Your task to perform on an android device: Show me productivity apps on the Play Store Image 0: 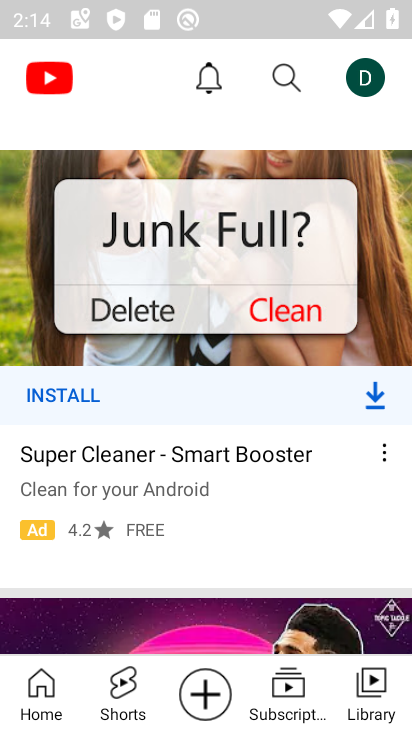
Step 0: press home button
Your task to perform on an android device: Show me productivity apps on the Play Store Image 1: 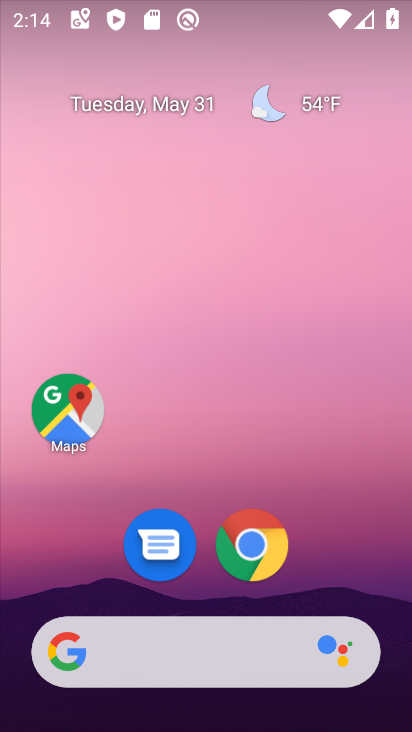
Step 1: drag from (397, 601) to (399, 54)
Your task to perform on an android device: Show me productivity apps on the Play Store Image 2: 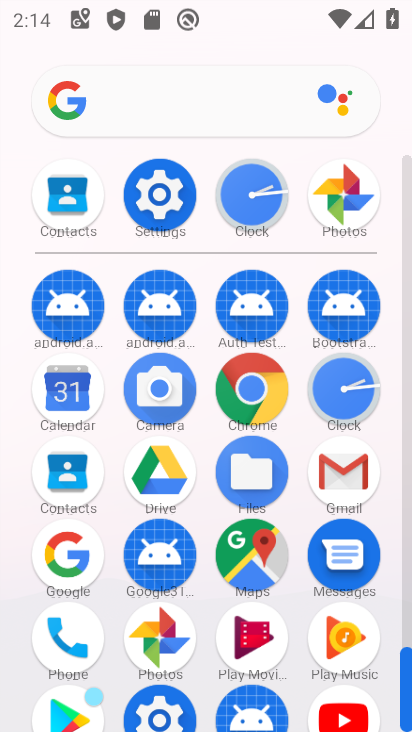
Step 2: click (44, 710)
Your task to perform on an android device: Show me productivity apps on the Play Store Image 3: 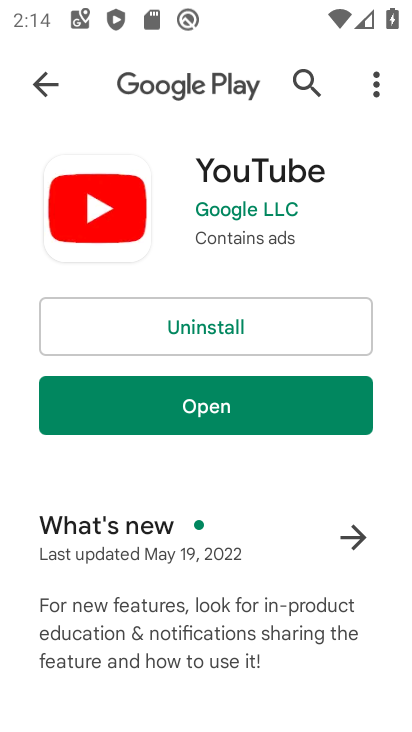
Step 3: click (51, 87)
Your task to perform on an android device: Show me productivity apps on the Play Store Image 4: 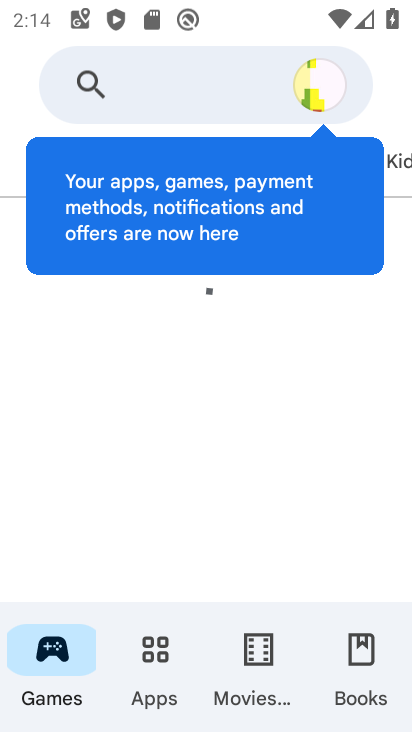
Step 4: click (149, 648)
Your task to perform on an android device: Show me productivity apps on the Play Store Image 5: 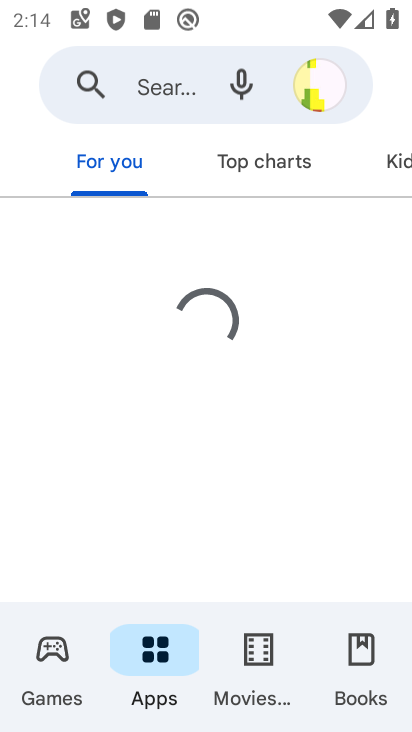
Step 5: click (305, 171)
Your task to perform on an android device: Show me productivity apps on the Play Store Image 6: 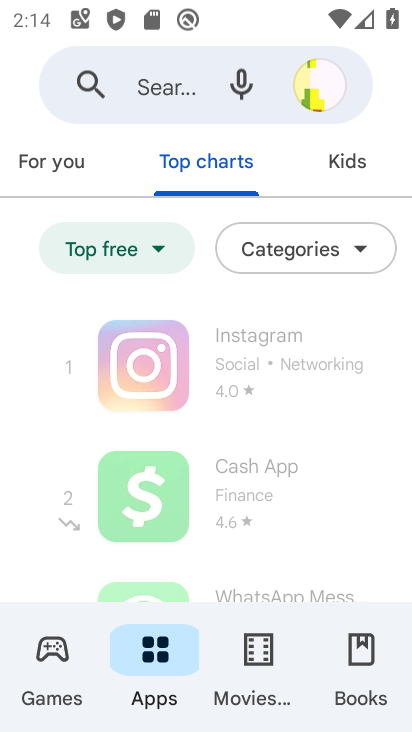
Step 6: click (359, 174)
Your task to perform on an android device: Show me productivity apps on the Play Store Image 7: 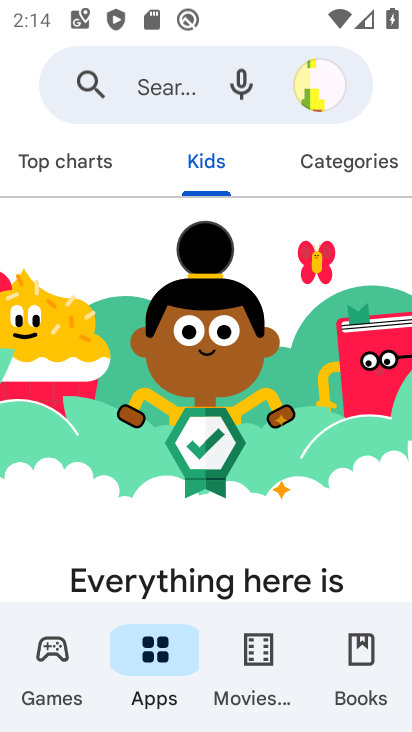
Step 7: click (359, 173)
Your task to perform on an android device: Show me productivity apps on the Play Store Image 8: 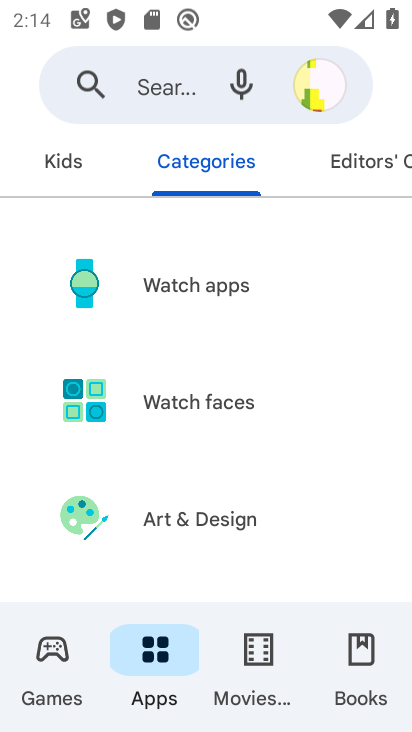
Step 8: drag from (316, 554) to (245, 41)
Your task to perform on an android device: Show me productivity apps on the Play Store Image 9: 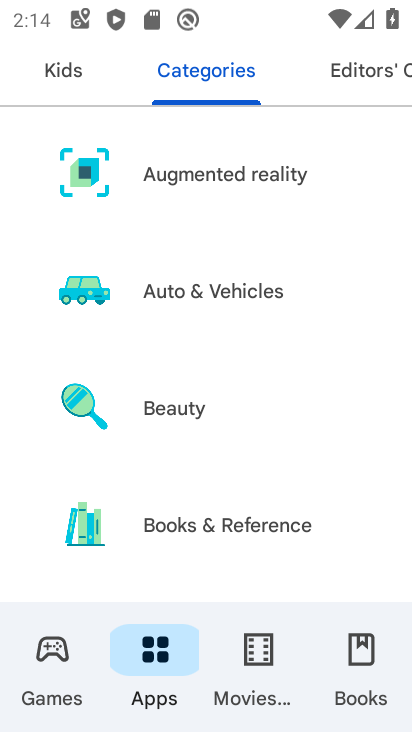
Step 9: drag from (267, 547) to (237, 5)
Your task to perform on an android device: Show me productivity apps on the Play Store Image 10: 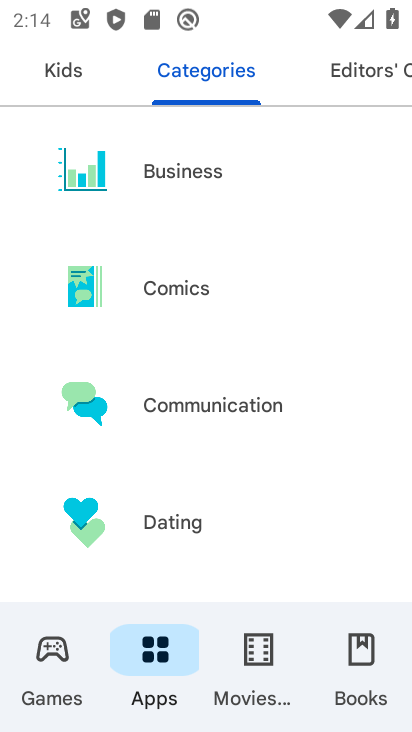
Step 10: drag from (291, 546) to (258, 42)
Your task to perform on an android device: Show me productivity apps on the Play Store Image 11: 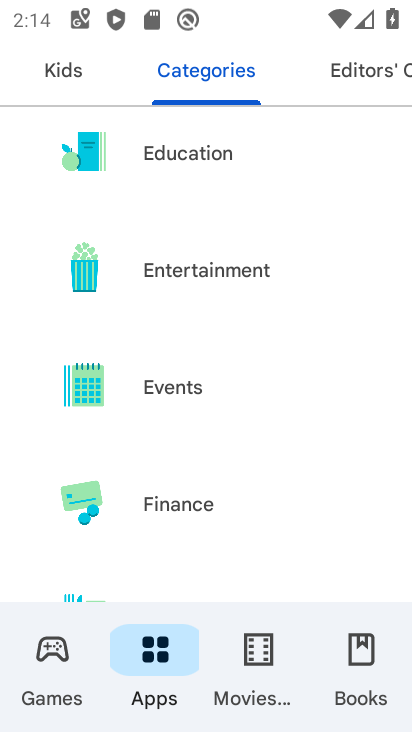
Step 11: drag from (238, 592) to (204, 97)
Your task to perform on an android device: Show me productivity apps on the Play Store Image 12: 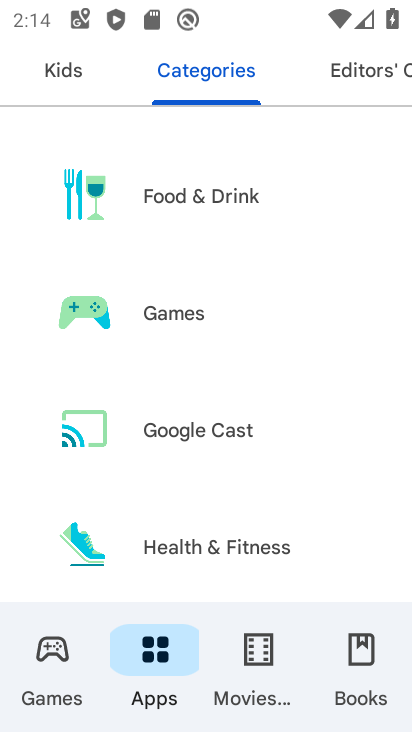
Step 12: drag from (233, 445) to (224, 223)
Your task to perform on an android device: Show me productivity apps on the Play Store Image 13: 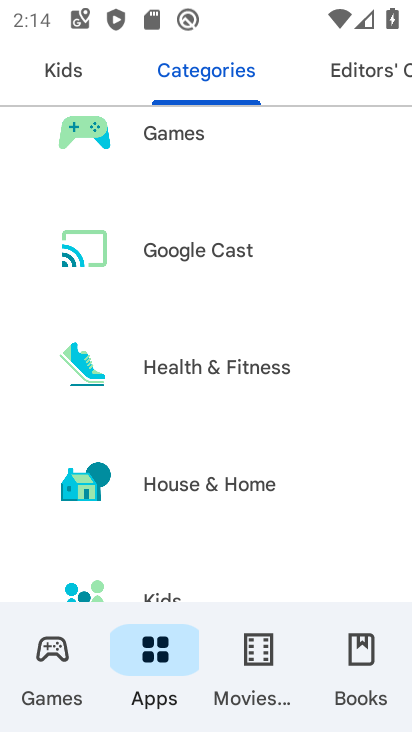
Step 13: drag from (211, 542) to (207, 169)
Your task to perform on an android device: Show me productivity apps on the Play Store Image 14: 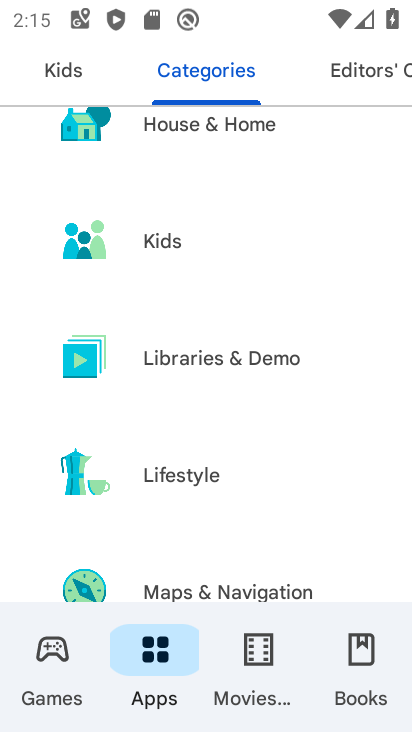
Step 14: drag from (247, 591) to (209, 225)
Your task to perform on an android device: Show me productivity apps on the Play Store Image 15: 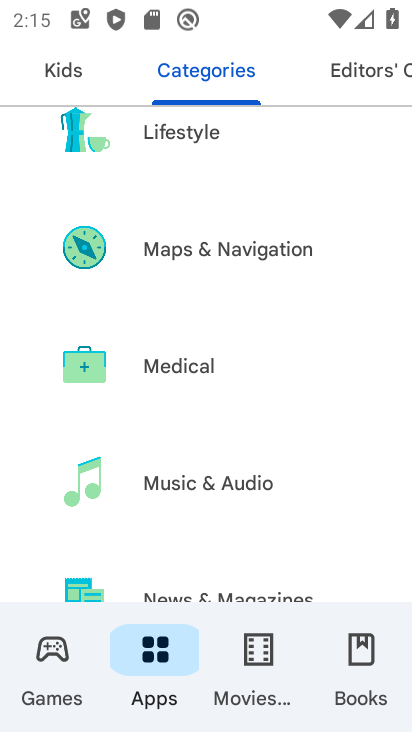
Step 15: drag from (215, 585) to (202, 299)
Your task to perform on an android device: Show me productivity apps on the Play Store Image 16: 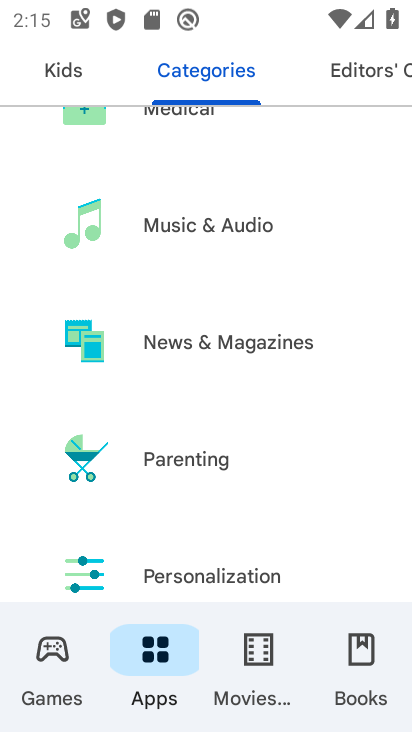
Step 16: drag from (231, 498) to (221, 74)
Your task to perform on an android device: Show me productivity apps on the Play Store Image 17: 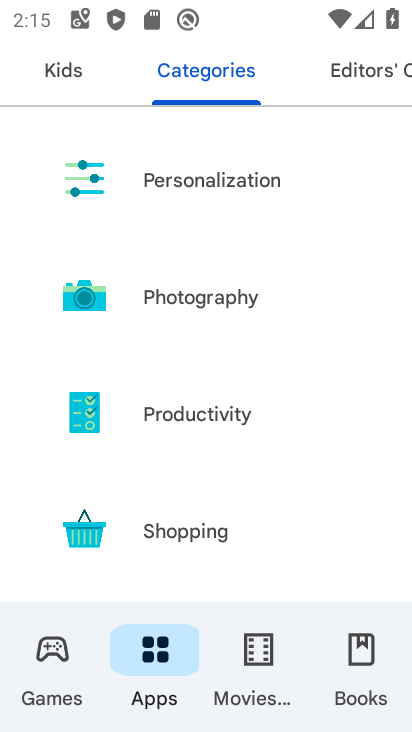
Step 17: click (237, 412)
Your task to perform on an android device: Show me productivity apps on the Play Store Image 18: 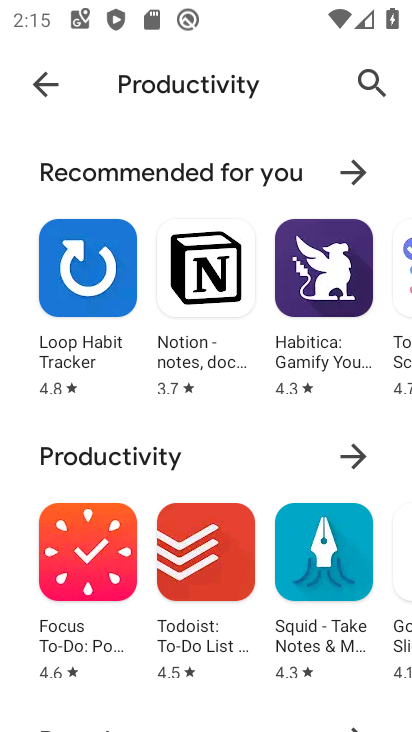
Step 18: task complete